Your task to perform on an android device: Open Chrome and go to settings Image 0: 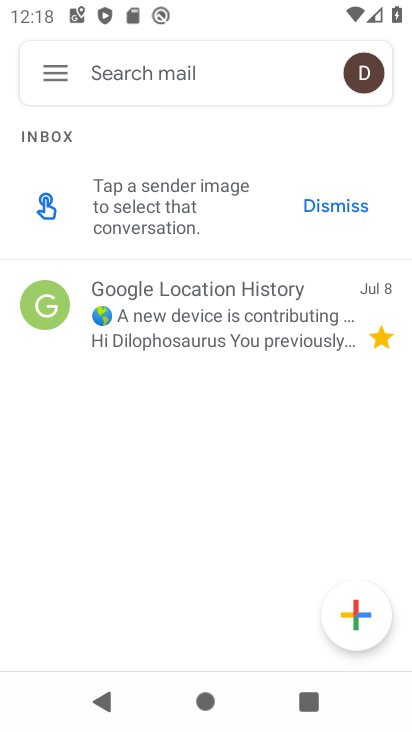
Step 0: press home button
Your task to perform on an android device: Open Chrome and go to settings Image 1: 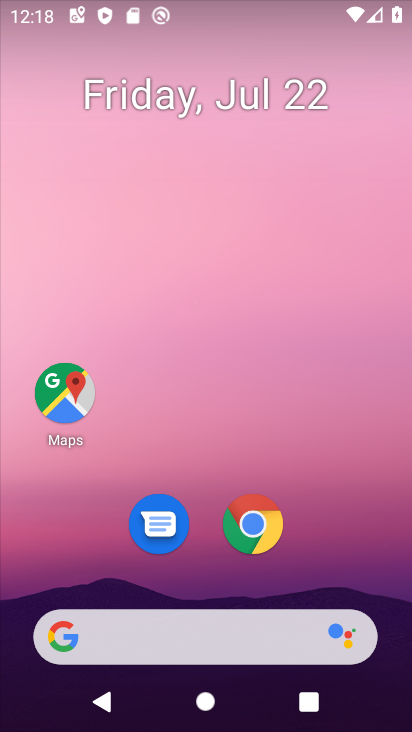
Step 1: click (262, 534)
Your task to perform on an android device: Open Chrome and go to settings Image 2: 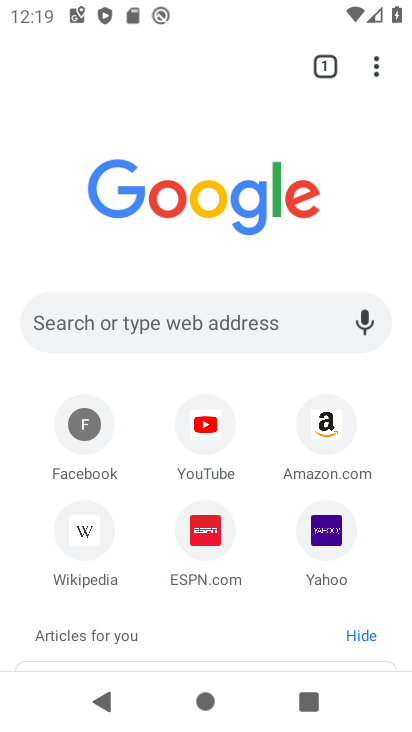
Step 2: click (377, 69)
Your task to perform on an android device: Open Chrome and go to settings Image 3: 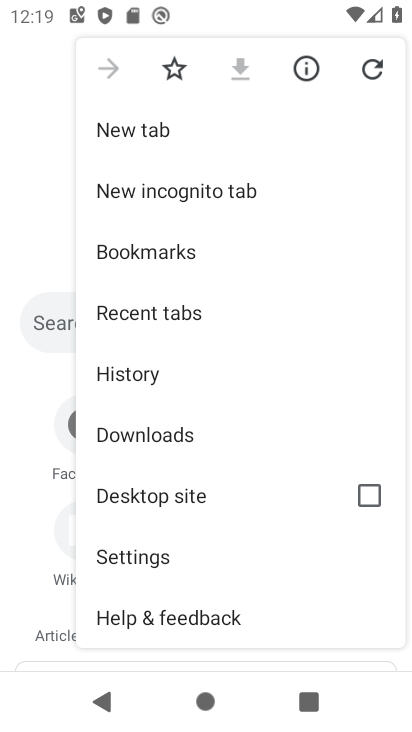
Step 3: click (142, 544)
Your task to perform on an android device: Open Chrome and go to settings Image 4: 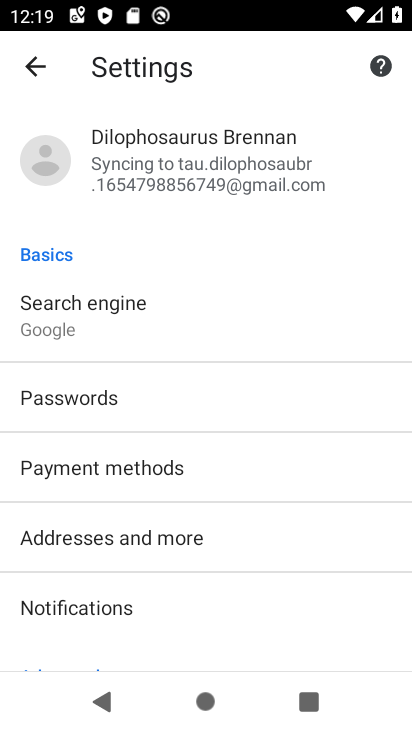
Step 4: task complete